Your task to perform on an android device: Open calendar and show me the second week of next month Image 0: 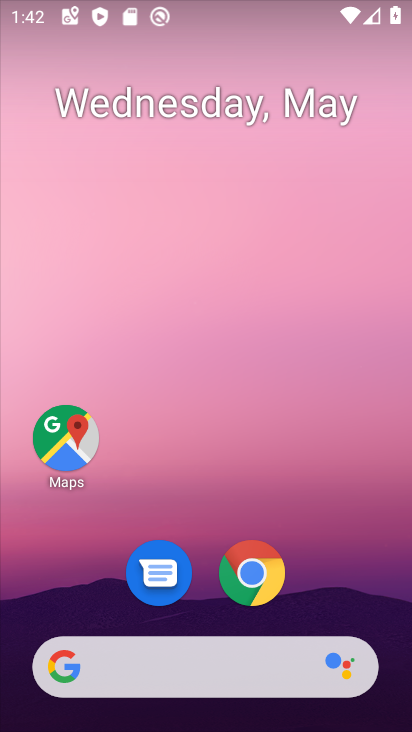
Step 0: drag from (328, 588) to (276, 46)
Your task to perform on an android device: Open calendar and show me the second week of next month Image 1: 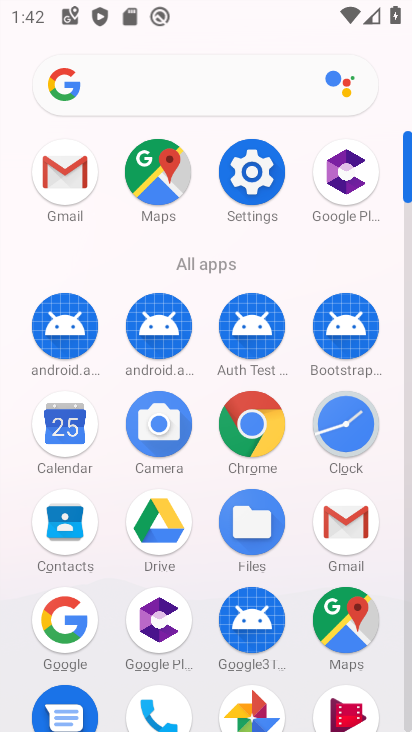
Step 1: click (67, 437)
Your task to perform on an android device: Open calendar and show me the second week of next month Image 2: 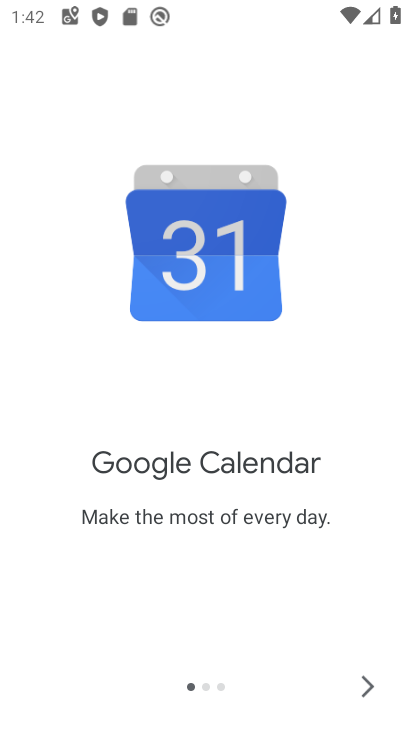
Step 2: click (375, 684)
Your task to perform on an android device: Open calendar and show me the second week of next month Image 3: 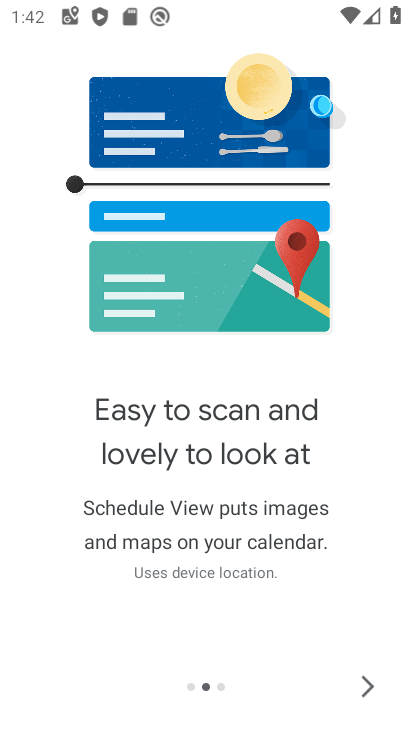
Step 3: click (377, 684)
Your task to perform on an android device: Open calendar and show me the second week of next month Image 4: 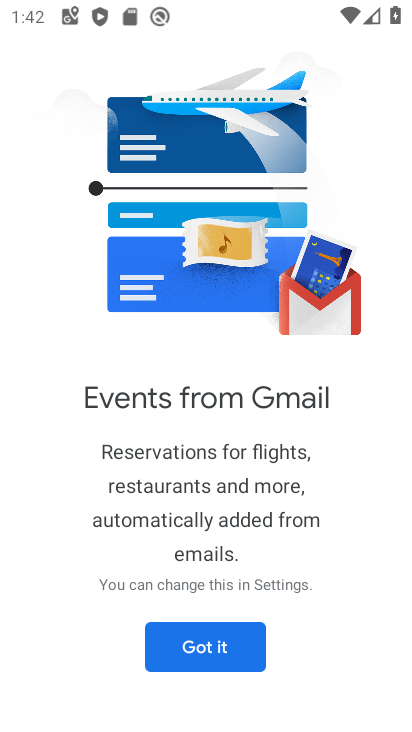
Step 4: click (234, 660)
Your task to perform on an android device: Open calendar and show me the second week of next month Image 5: 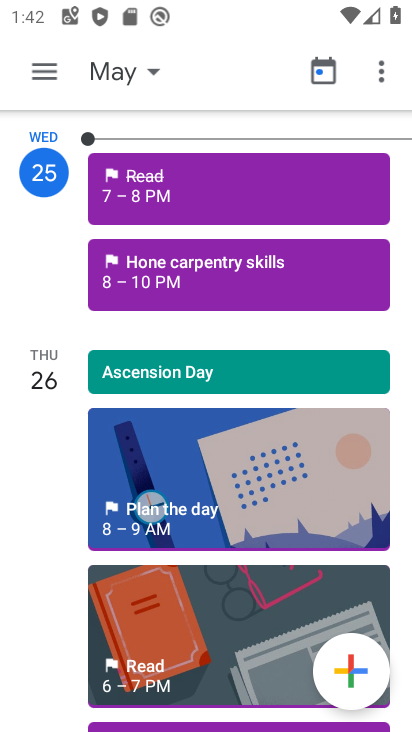
Step 5: click (96, 85)
Your task to perform on an android device: Open calendar and show me the second week of next month Image 6: 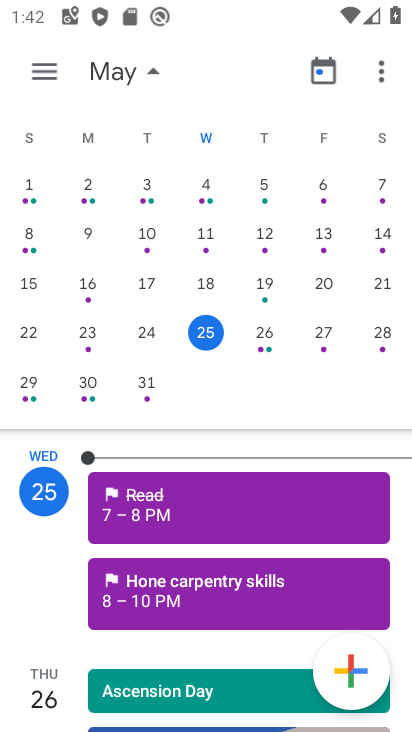
Step 6: drag from (382, 344) to (5, 316)
Your task to perform on an android device: Open calendar and show me the second week of next month Image 7: 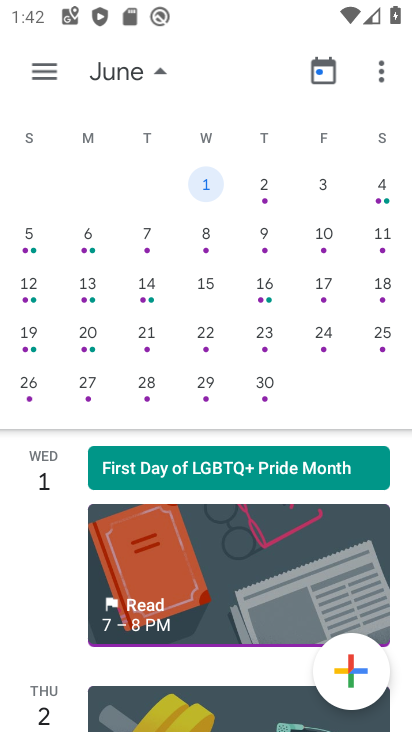
Step 7: click (35, 241)
Your task to perform on an android device: Open calendar and show me the second week of next month Image 8: 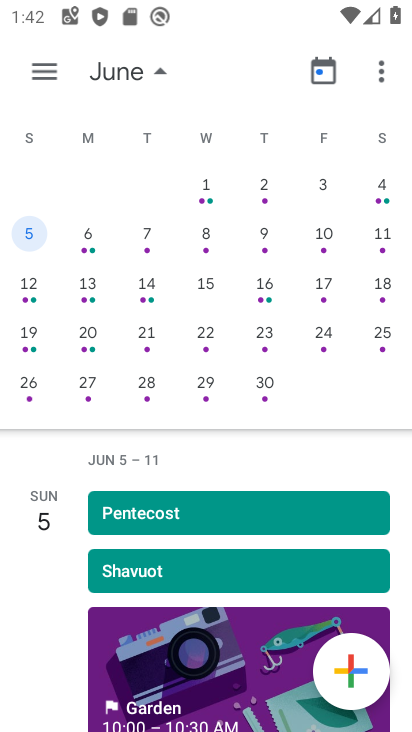
Step 8: task complete